Your task to perform on an android device: clear history in the chrome app Image 0: 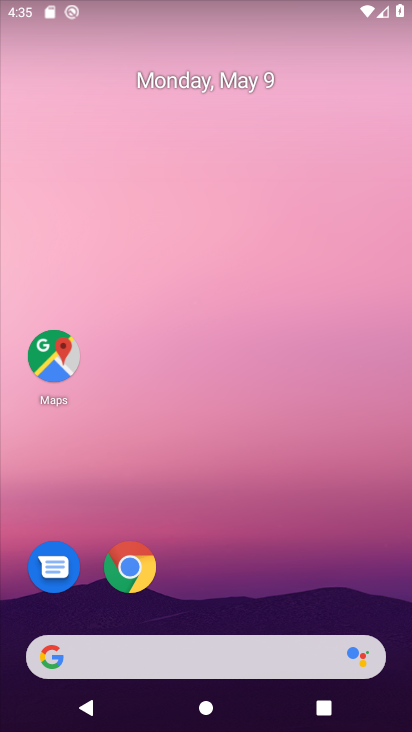
Step 0: click (138, 587)
Your task to perform on an android device: clear history in the chrome app Image 1: 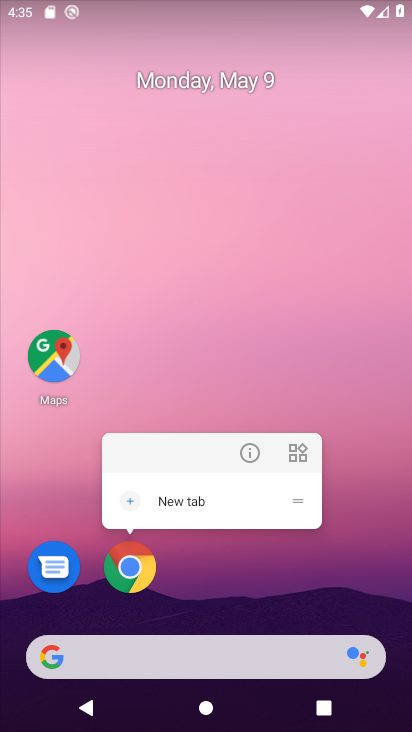
Step 1: click (130, 580)
Your task to perform on an android device: clear history in the chrome app Image 2: 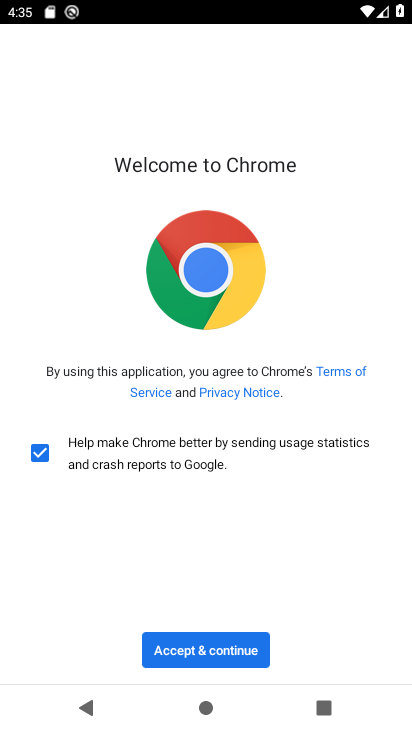
Step 2: click (185, 664)
Your task to perform on an android device: clear history in the chrome app Image 3: 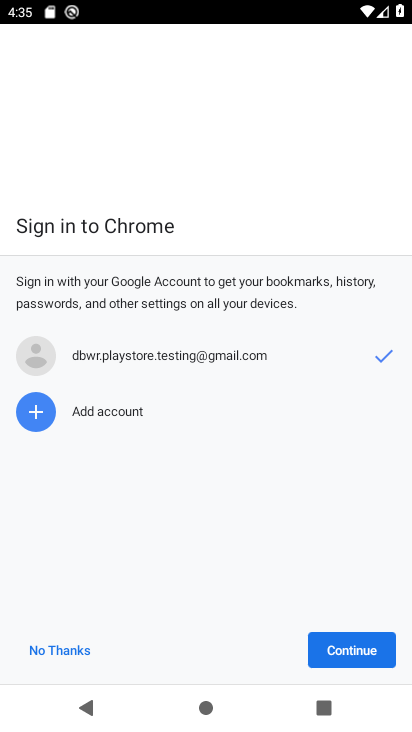
Step 3: click (347, 653)
Your task to perform on an android device: clear history in the chrome app Image 4: 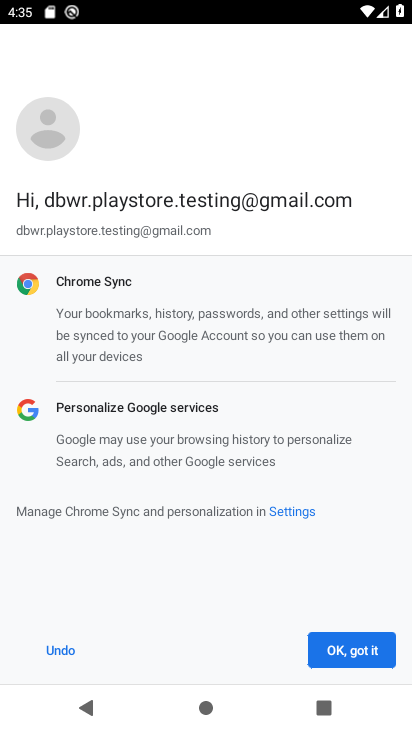
Step 4: click (347, 653)
Your task to perform on an android device: clear history in the chrome app Image 5: 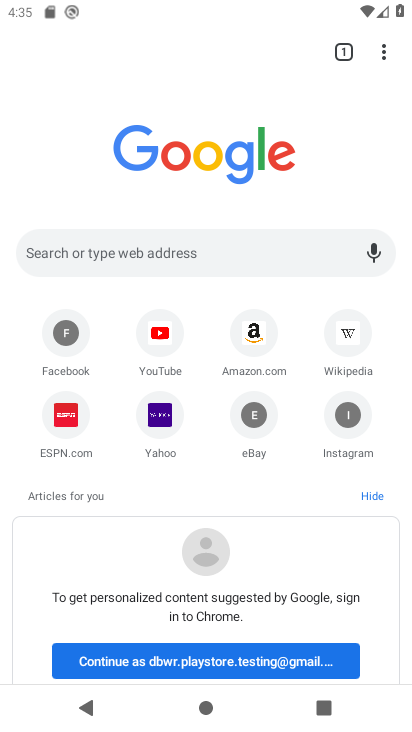
Step 5: task complete